Your task to perform on an android device: Open CNN.com Image 0: 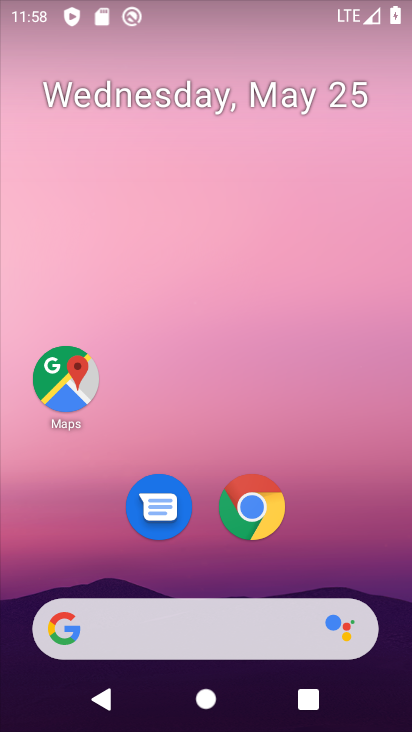
Step 0: click (237, 542)
Your task to perform on an android device: Open CNN.com Image 1: 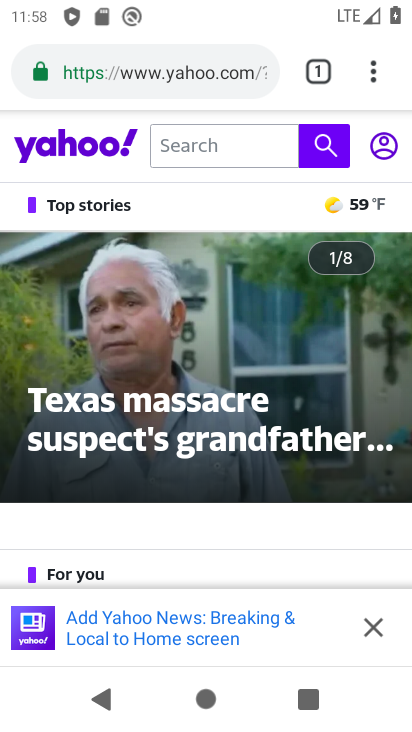
Step 1: click (318, 78)
Your task to perform on an android device: Open CNN.com Image 2: 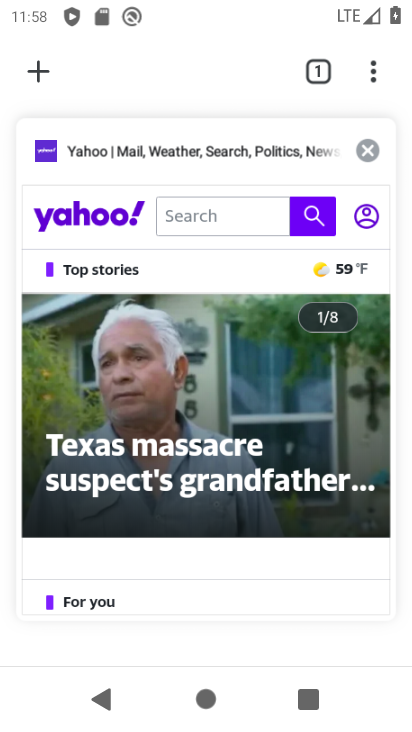
Step 2: click (28, 79)
Your task to perform on an android device: Open CNN.com Image 3: 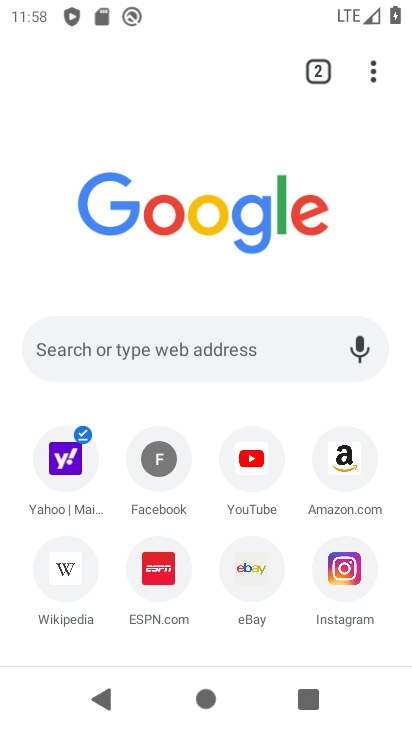
Step 3: click (157, 335)
Your task to perform on an android device: Open CNN.com Image 4: 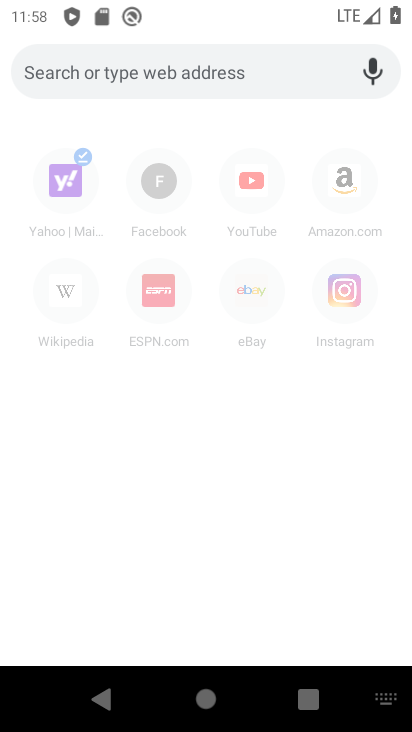
Step 4: type "CNN.com"
Your task to perform on an android device: Open CNN.com Image 5: 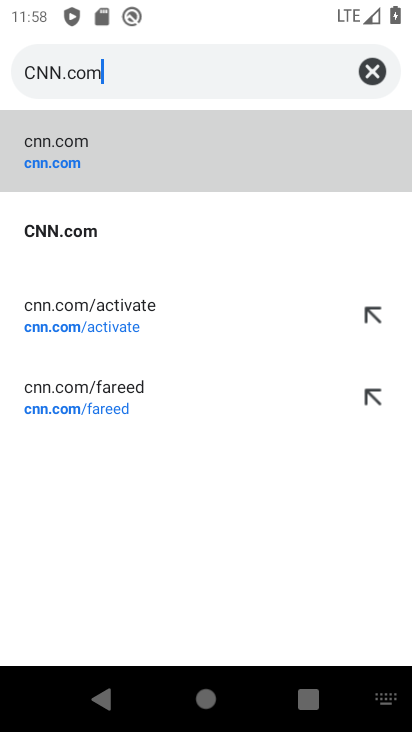
Step 5: click (130, 147)
Your task to perform on an android device: Open CNN.com Image 6: 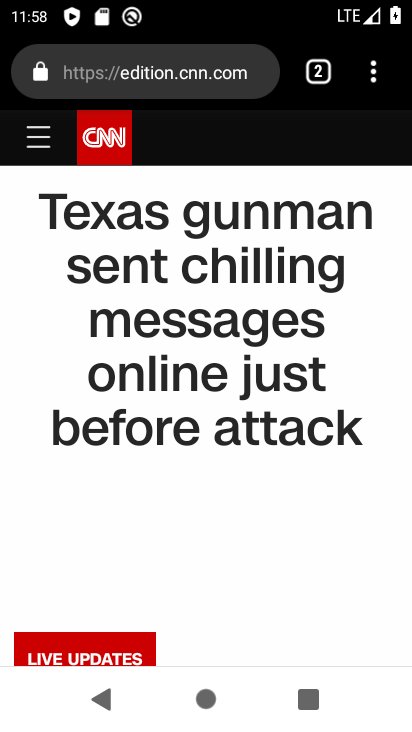
Step 6: task complete